Your task to perform on an android device: set default search engine in the chrome app Image 0: 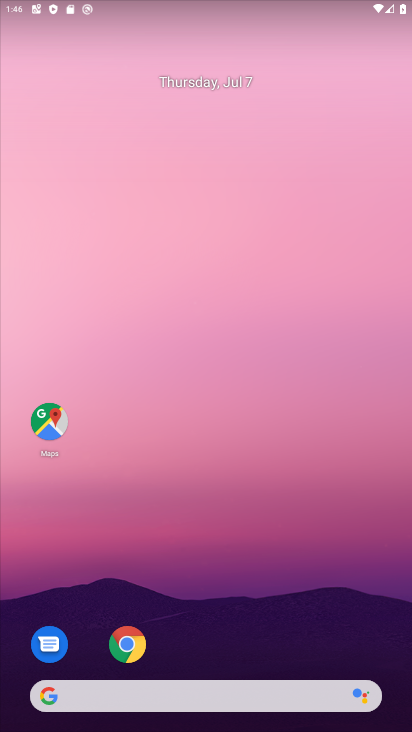
Step 0: click (128, 651)
Your task to perform on an android device: set default search engine in the chrome app Image 1: 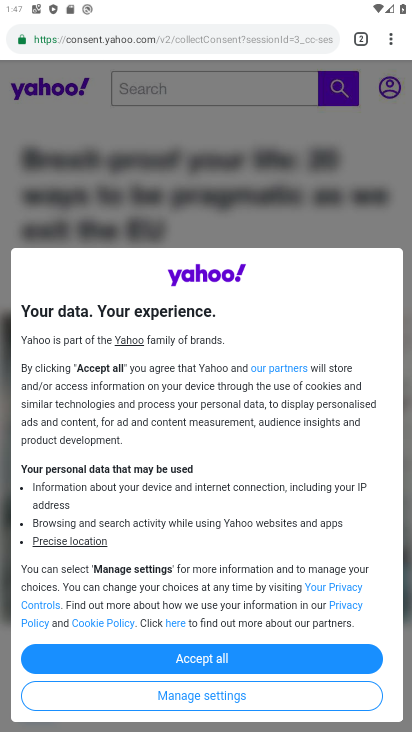
Step 1: click (211, 666)
Your task to perform on an android device: set default search engine in the chrome app Image 2: 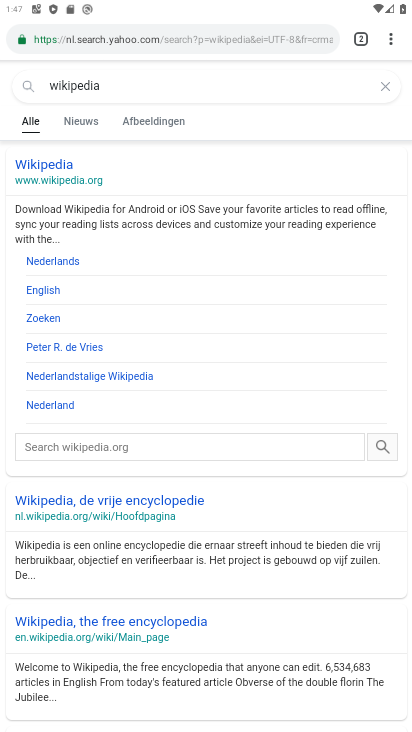
Step 2: drag from (397, 46) to (262, 470)
Your task to perform on an android device: set default search engine in the chrome app Image 3: 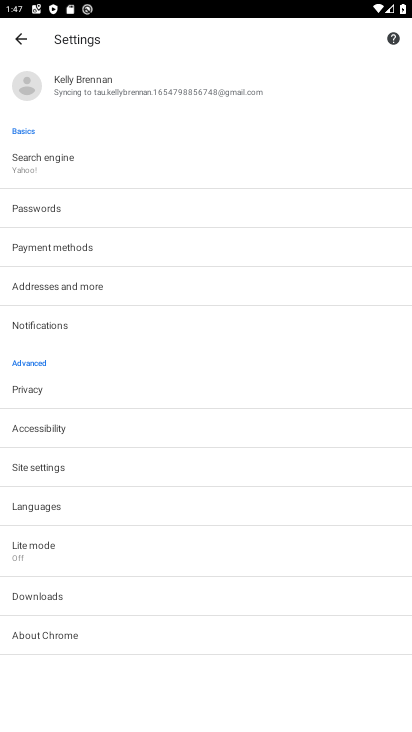
Step 3: click (53, 162)
Your task to perform on an android device: set default search engine in the chrome app Image 4: 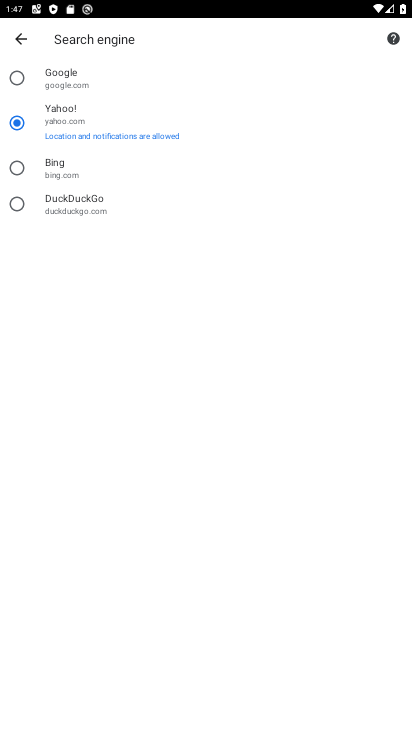
Step 4: click (55, 94)
Your task to perform on an android device: set default search engine in the chrome app Image 5: 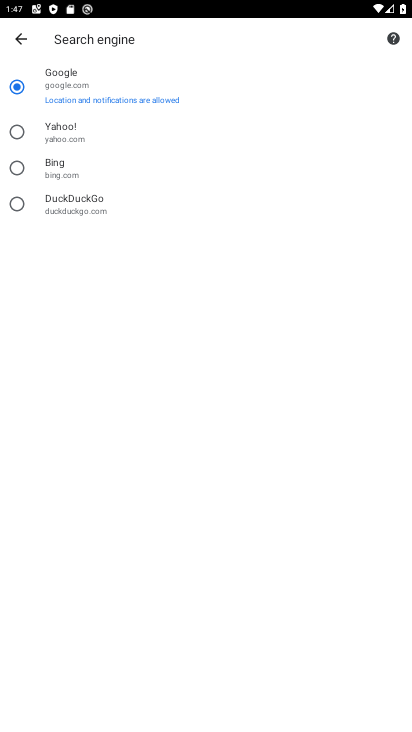
Step 5: task complete